Your task to perform on an android device: Open the stopwatch Image 0: 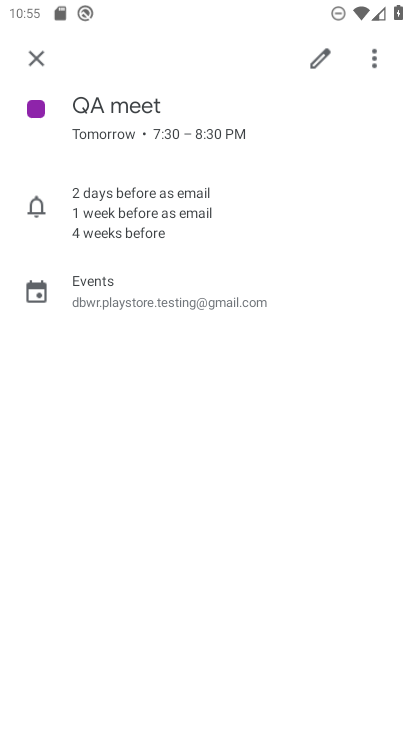
Step 0: press back button
Your task to perform on an android device: Open the stopwatch Image 1: 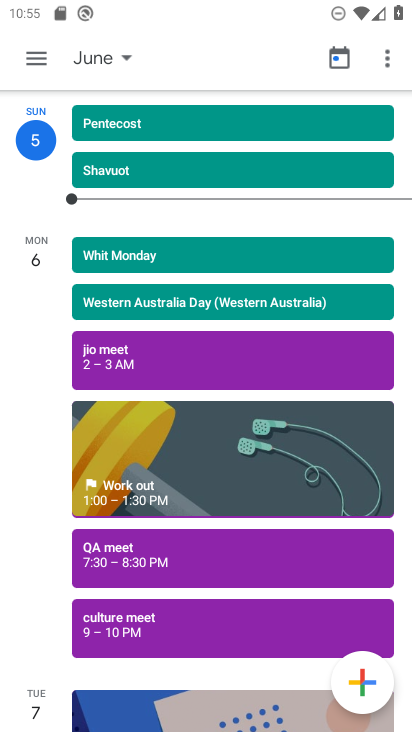
Step 1: press back button
Your task to perform on an android device: Open the stopwatch Image 2: 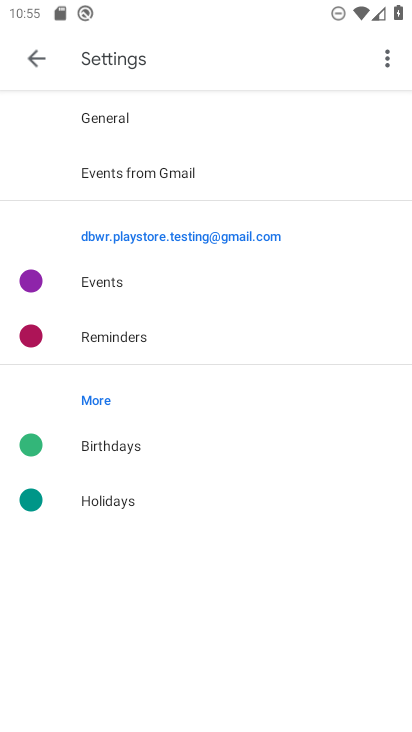
Step 2: press back button
Your task to perform on an android device: Open the stopwatch Image 3: 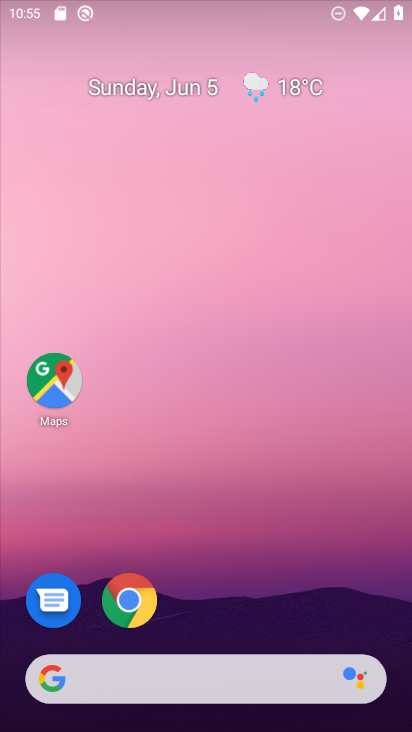
Step 3: drag from (192, 581) to (327, 6)
Your task to perform on an android device: Open the stopwatch Image 4: 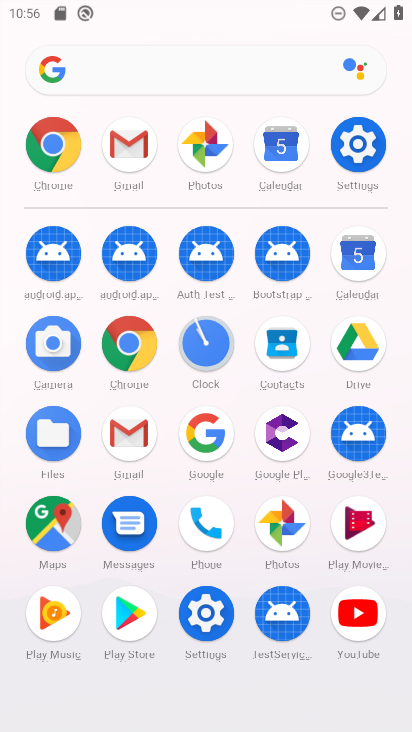
Step 4: click (188, 334)
Your task to perform on an android device: Open the stopwatch Image 5: 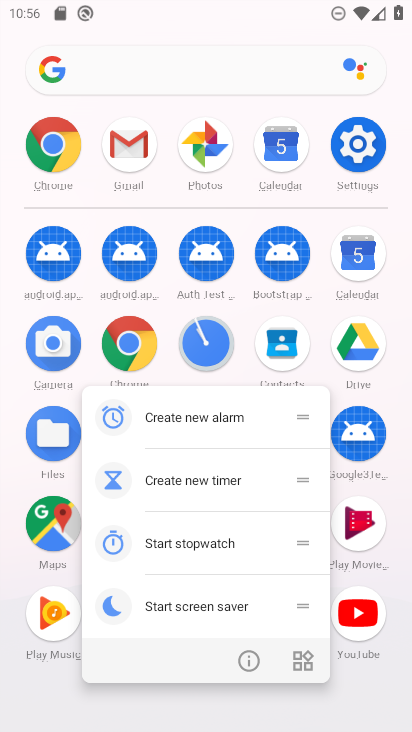
Step 5: click (211, 338)
Your task to perform on an android device: Open the stopwatch Image 6: 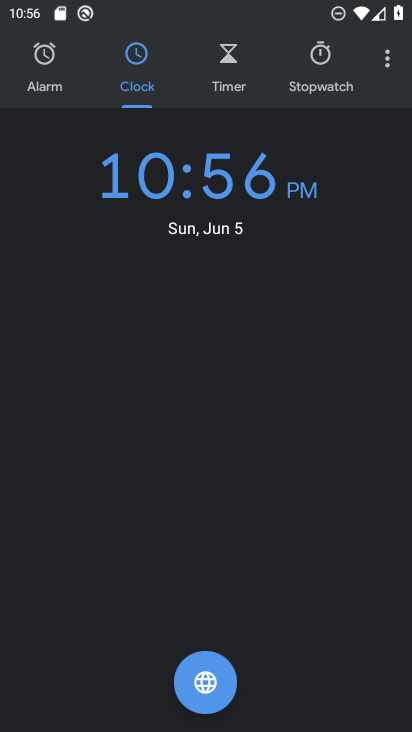
Step 6: click (316, 77)
Your task to perform on an android device: Open the stopwatch Image 7: 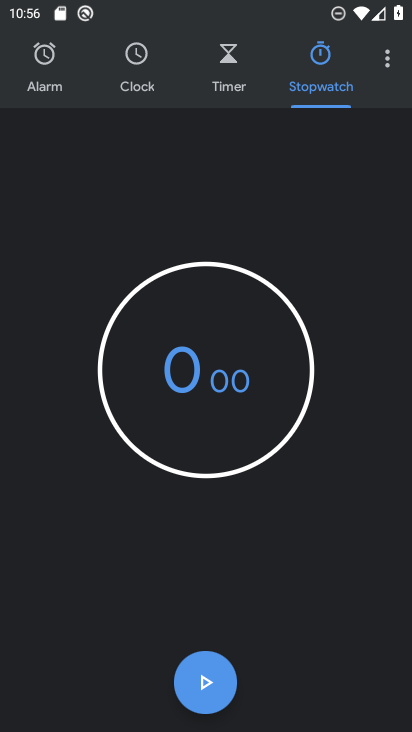
Step 7: task complete